Your task to perform on an android device: open sync settings in chrome Image 0: 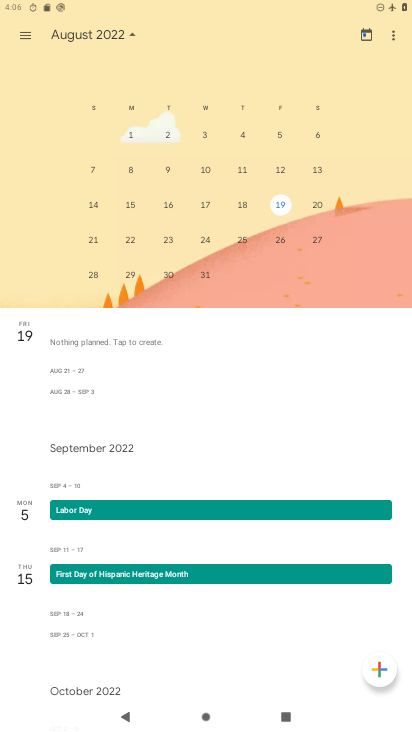
Step 0: press home button
Your task to perform on an android device: open sync settings in chrome Image 1: 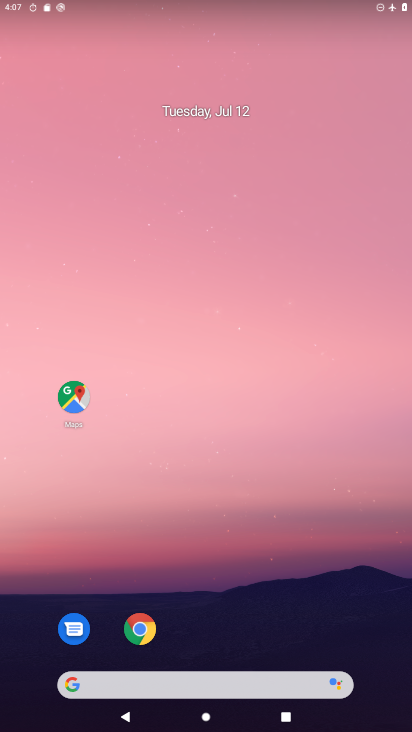
Step 1: click (151, 642)
Your task to perform on an android device: open sync settings in chrome Image 2: 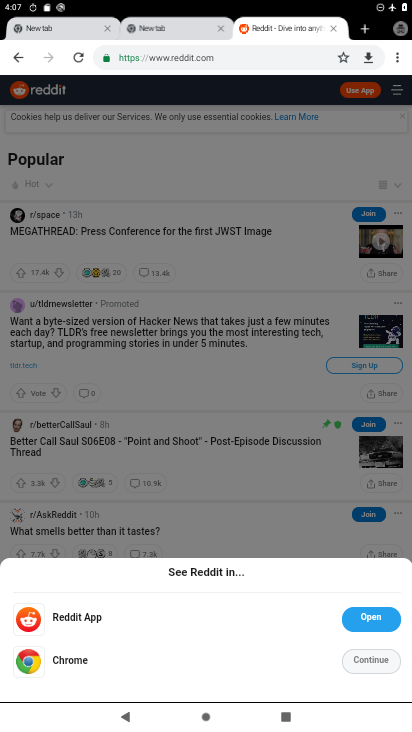
Step 2: drag from (400, 56) to (265, 348)
Your task to perform on an android device: open sync settings in chrome Image 3: 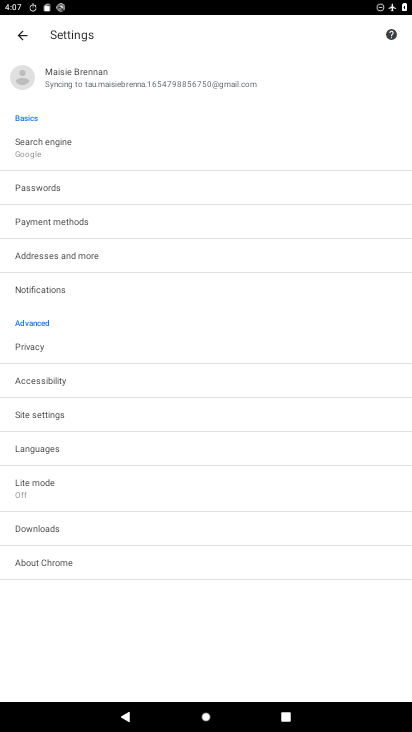
Step 3: click (75, 81)
Your task to perform on an android device: open sync settings in chrome Image 4: 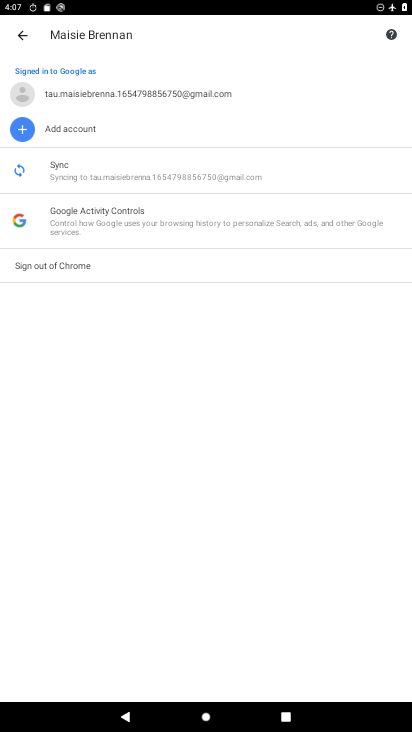
Step 4: click (80, 161)
Your task to perform on an android device: open sync settings in chrome Image 5: 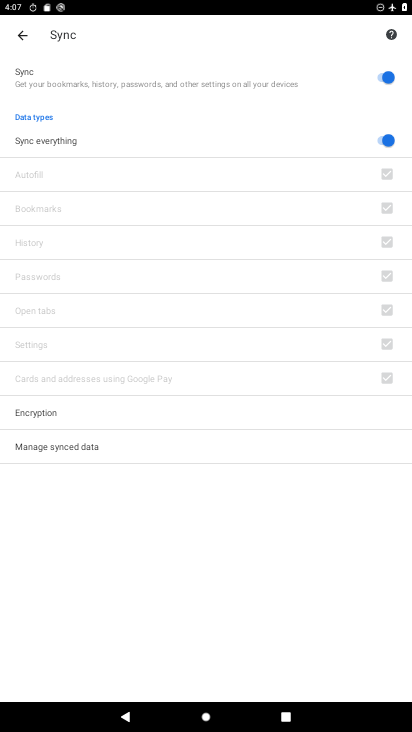
Step 5: task complete